Your task to perform on an android device: Open network settings Image 0: 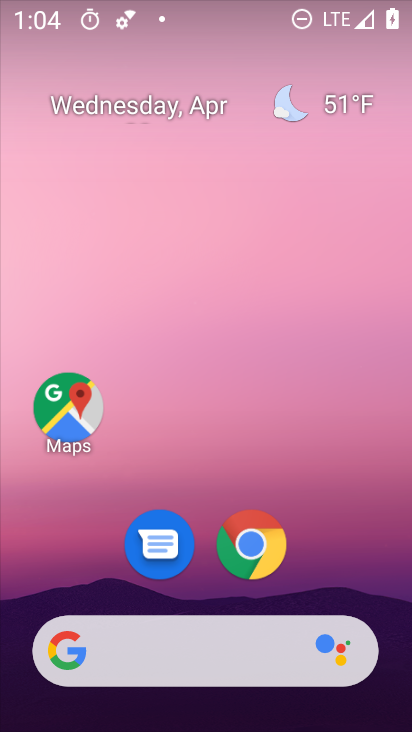
Step 0: drag from (322, 443) to (300, 95)
Your task to perform on an android device: Open network settings Image 1: 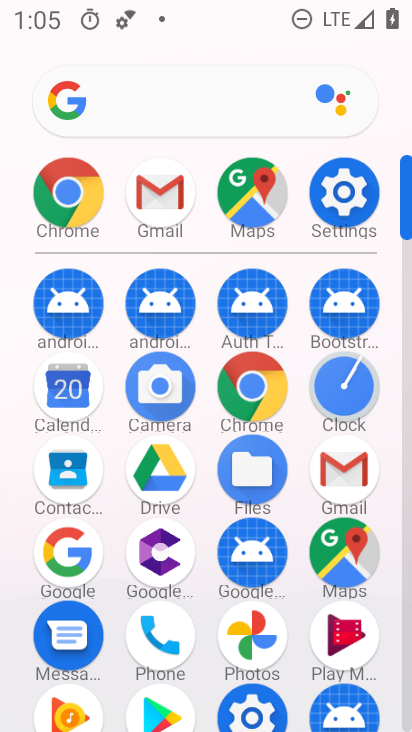
Step 1: click (361, 220)
Your task to perform on an android device: Open network settings Image 2: 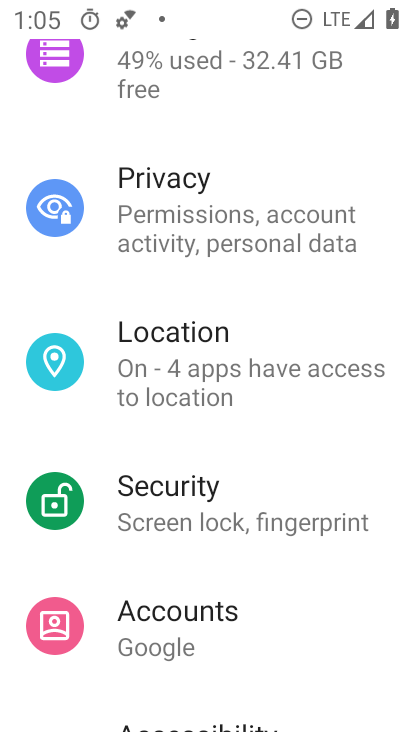
Step 2: drag from (377, 283) to (360, 420)
Your task to perform on an android device: Open network settings Image 3: 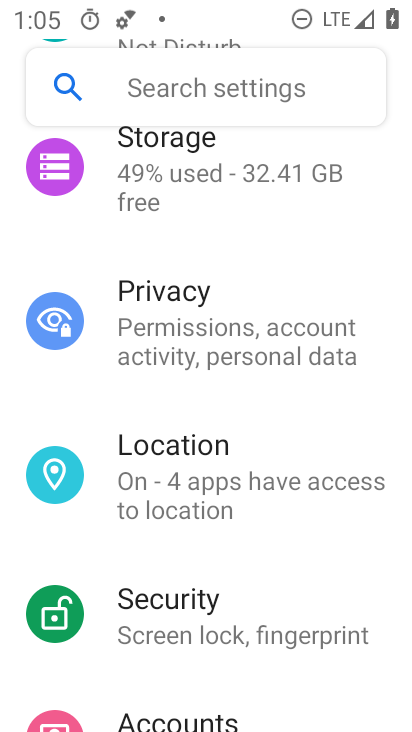
Step 3: drag from (391, 289) to (367, 394)
Your task to perform on an android device: Open network settings Image 4: 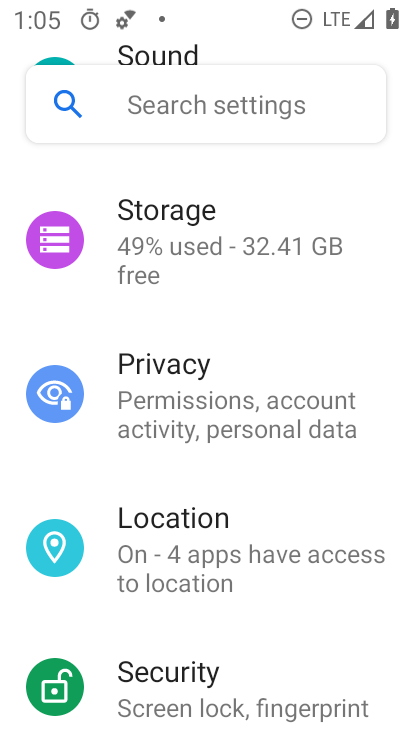
Step 4: drag from (390, 259) to (376, 398)
Your task to perform on an android device: Open network settings Image 5: 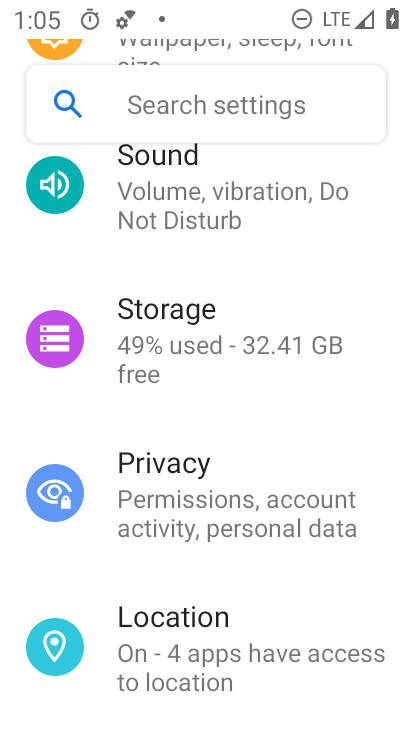
Step 5: drag from (365, 242) to (321, 413)
Your task to perform on an android device: Open network settings Image 6: 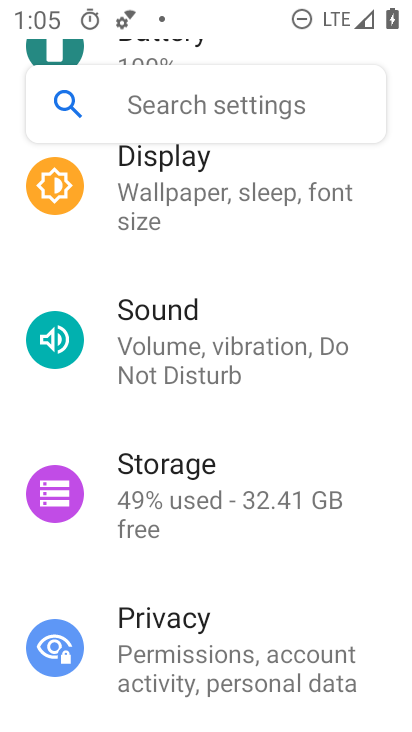
Step 6: drag from (391, 231) to (364, 381)
Your task to perform on an android device: Open network settings Image 7: 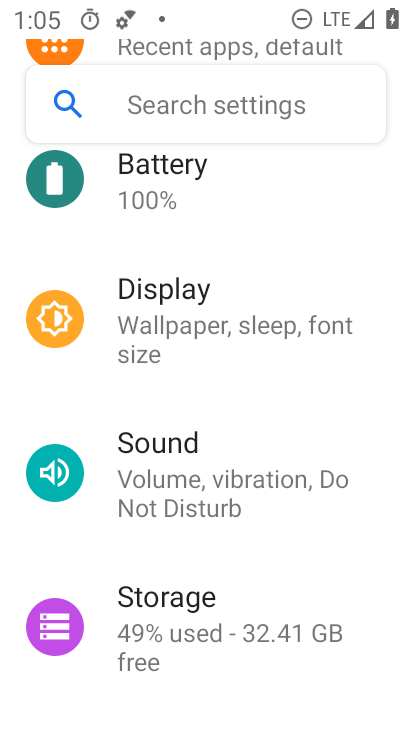
Step 7: drag from (364, 214) to (343, 380)
Your task to perform on an android device: Open network settings Image 8: 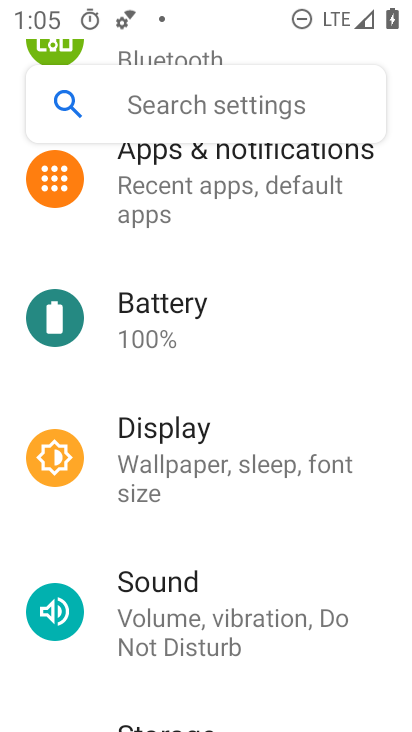
Step 8: drag from (368, 220) to (378, 349)
Your task to perform on an android device: Open network settings Image 9: 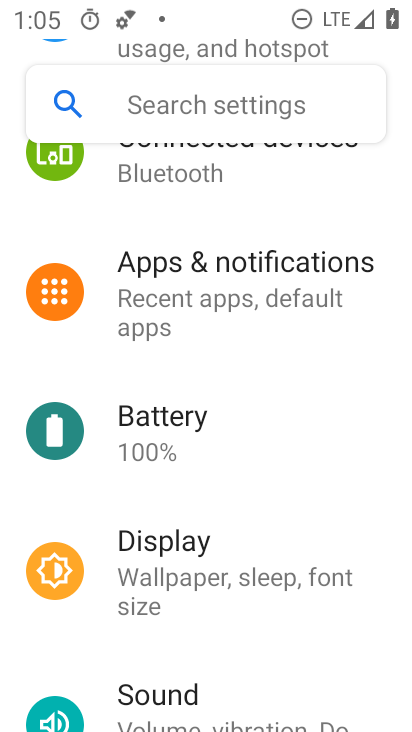
Step 9: drag from (386, 209) to (392, 324)
Your task to perform on an android device: Open network settings Image 10: 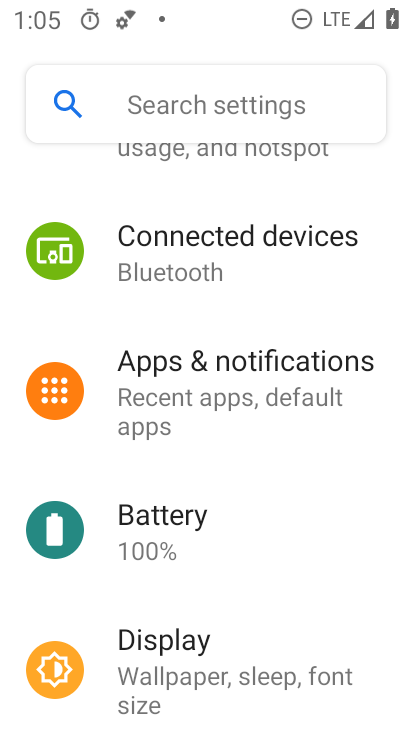
Step 10: drag from (386, 215) to (379, 326)
Your task to perform on an android device: Open network settings Image 11: 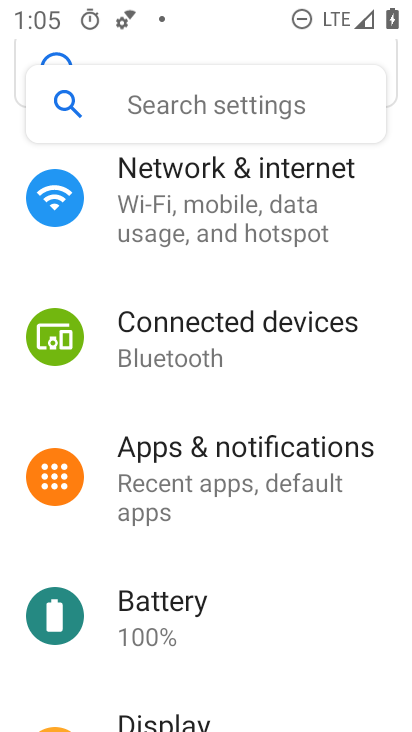
Step 11: drag from (378, 212) to (381, 327)
Your task to perform on an android device: Open network settings Image 12: 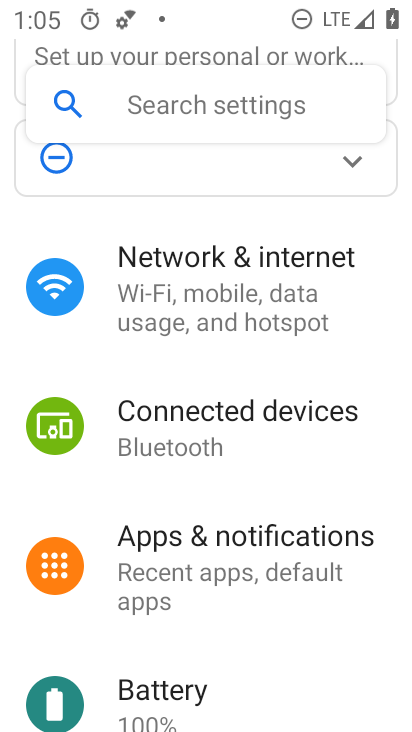
Step 12: click (284, 249)
Your task to perform on an android device: Open network settings Image 13: 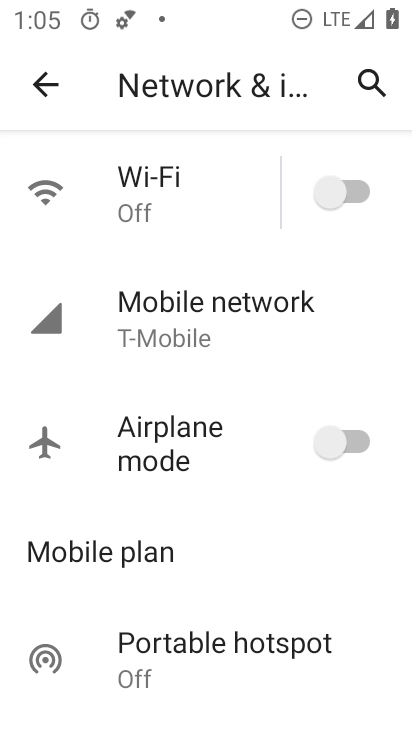
Step 13: task complete